Your task to perform on an android device: empty trash in google photos Image 0: 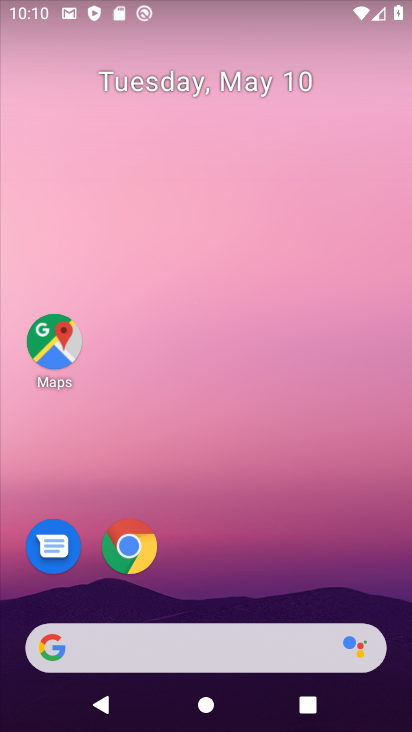
Step 0: drag from (221, 547) to (211, 102)
Your task to perform on an android device: empty trash in google photos Image 1: 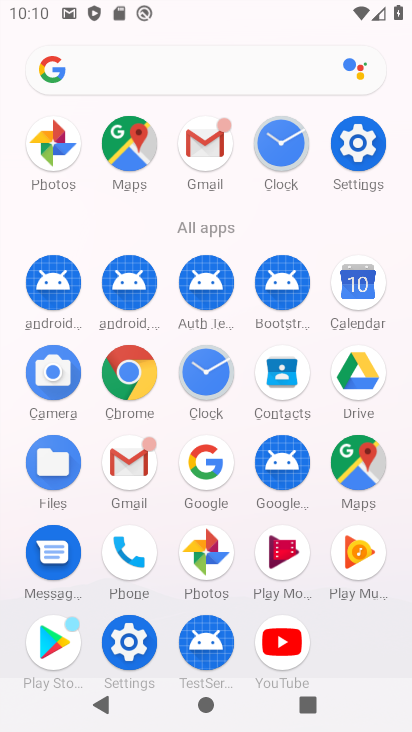
Step 1: click (200, 549)
Your task to perform on an android device: empty trash in google photos Image 2: 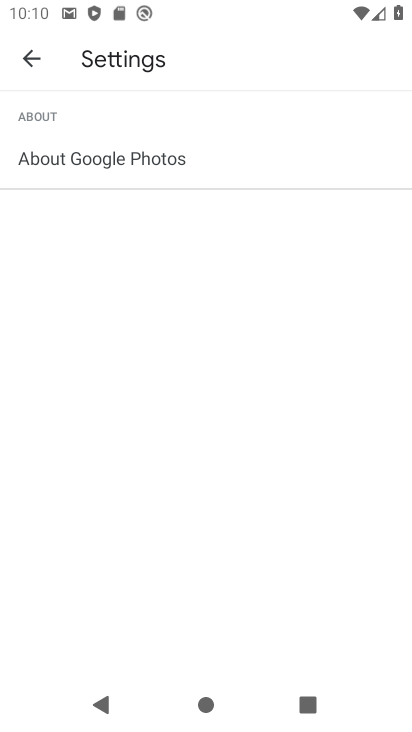
Step 2: press home button
Your task to perform on an android device: empty trash in google photos Image 3: 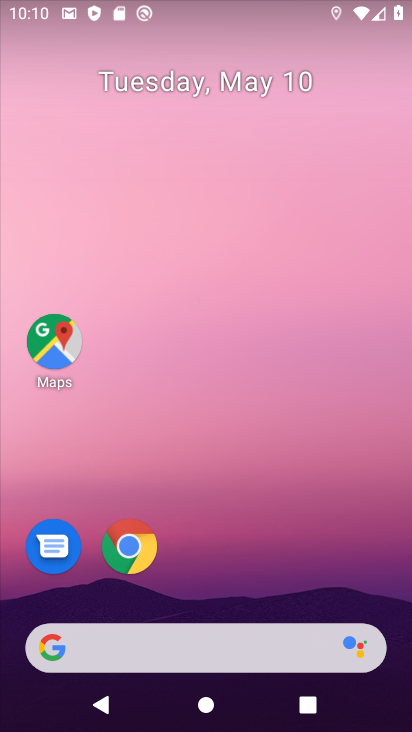
Step 3: drag from (255, 557) to (232, 100)
Your task to perform on an android device: empty trash in google photos Image 4: 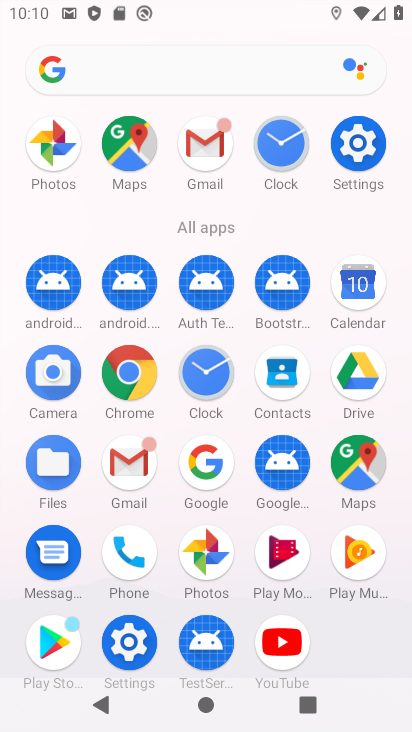
Step 4: click (218, 541)
Your task to perform on an android device: empty trash in google photos Image 5: 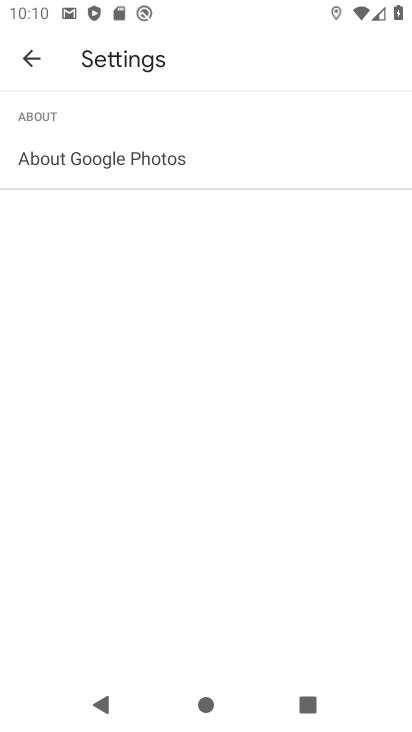
Step 5: click (24, 51)
Your task to perform on an android device: empty trash in google photos Image 6: 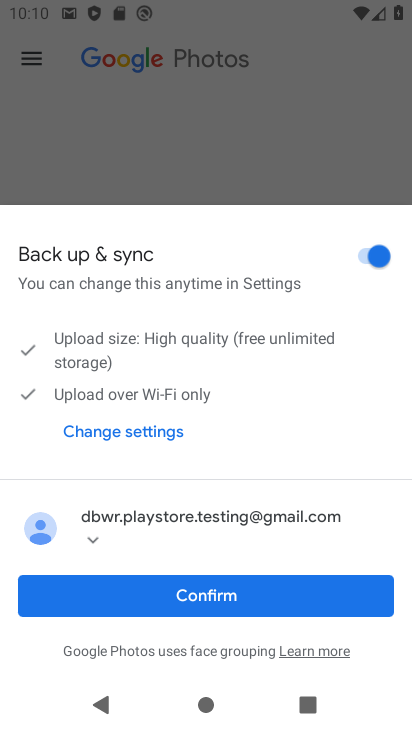
Step 6: click (310, 590)
Your task to perform on an android device: empty trash in google photos Image 7: 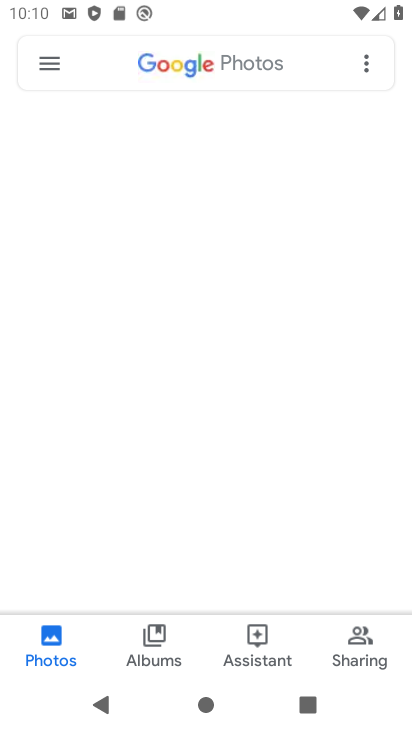
Step 7: click (36, 63)
Your task to perform on an android device: empty trash in google photos Image 8: 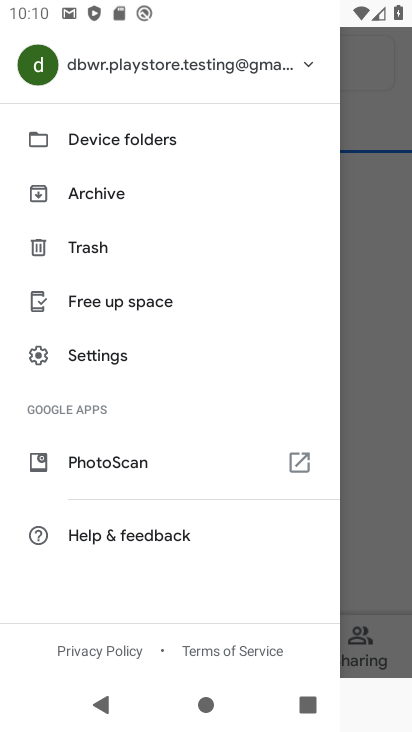
Step 8: click (130, 263)
Your task to perform on an android device: empty trash in google photos Image 9: 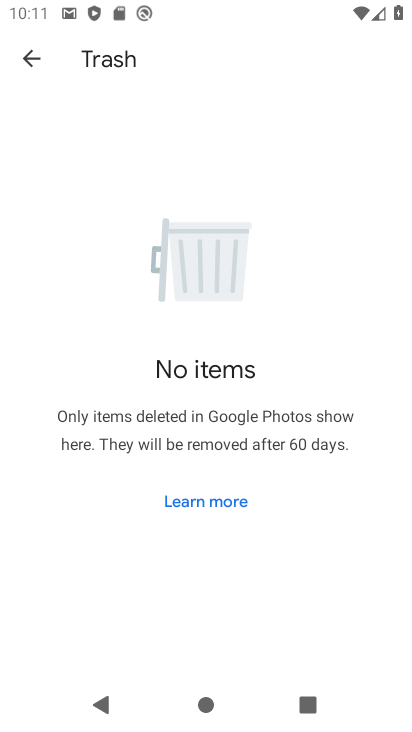
Step 9: task complete